Your task to perform on an android device: change the clock display to digital Image 0: 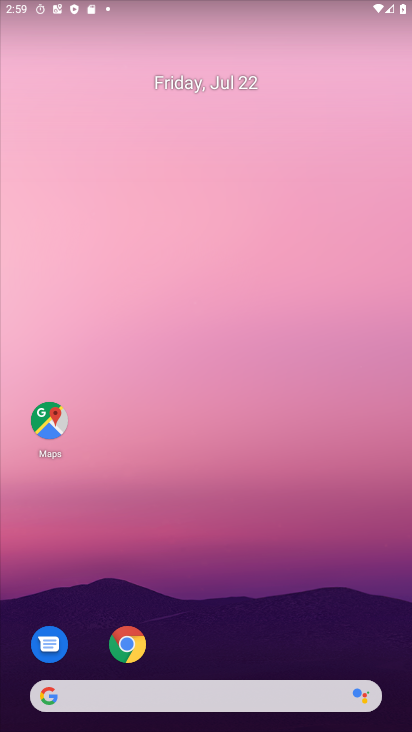
Step 0: press home button
Your task to perform on an android device: change the clock display to digital Image 1: 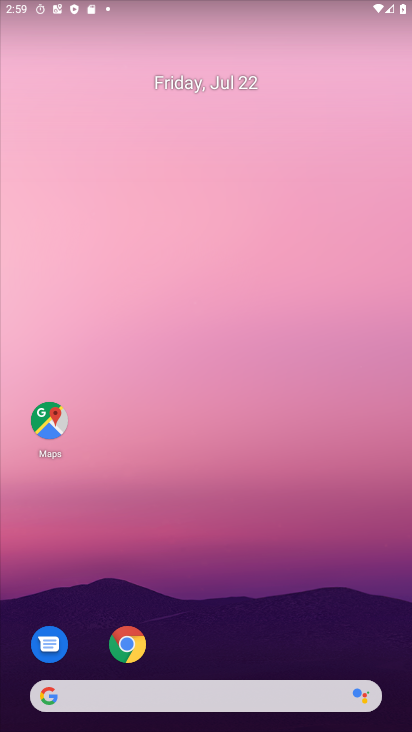
Step 1: drag from (220, 654) to (217, 100)
Your task to perform on an android device: change the clock display to digital Image 2: 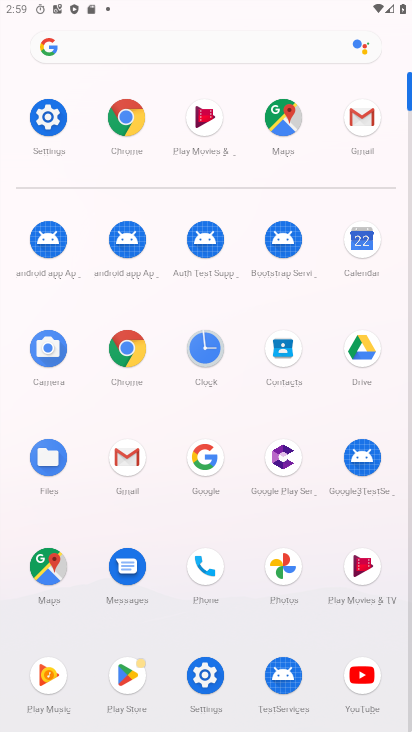
Step 2: click (198, 341)
Your task to perform on an android device: change the clock display to digital Image 3: 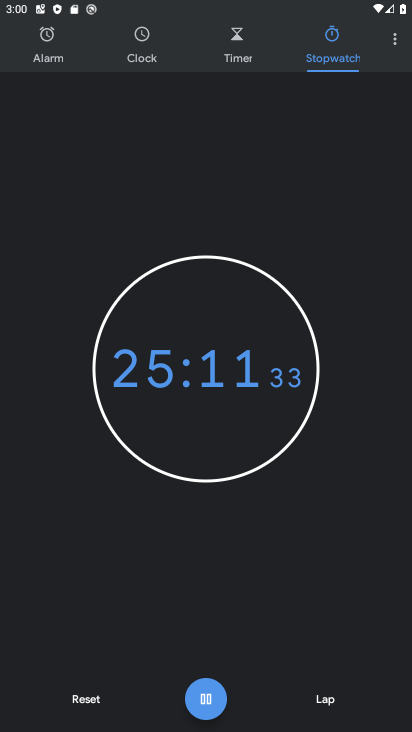
Step 3: click (392, 37)
Your task to perform on an android device: change the clock display to digital Image 4: 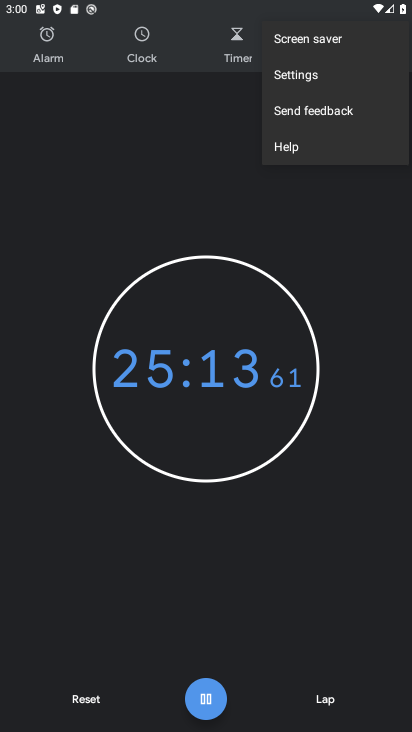
Step 4: click (311, 73)
Your task to perform on an android device: change the clock display to digital Image 5: 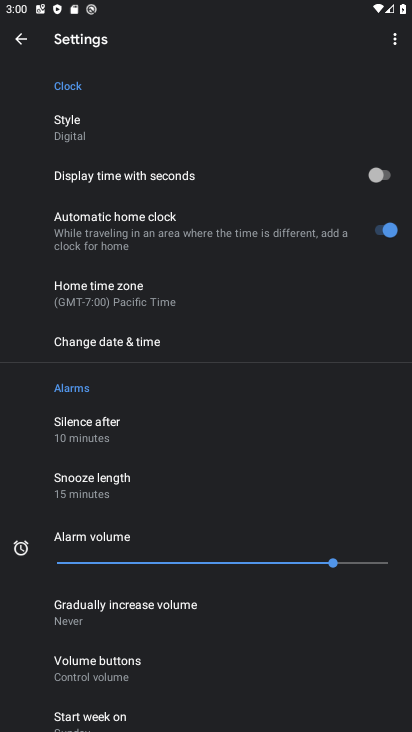
Step 5: click (68, 133)
Your task to perform on an android device: change the clock display to digital Image 6: 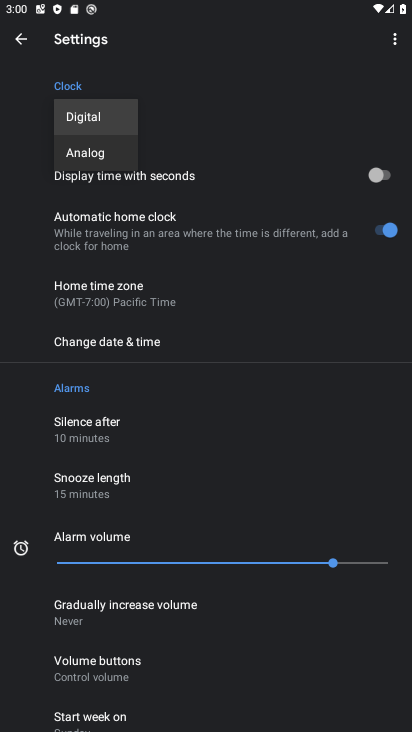
Step 6: task complete